Your task to perform on an android device: When is my next meeting? Image 0: 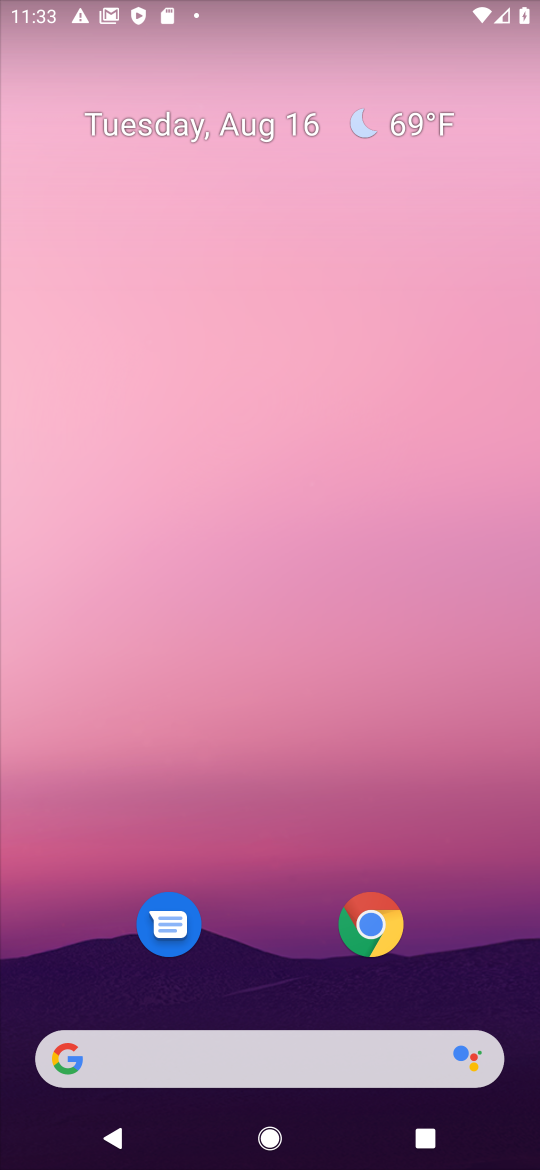
Step 0: click (222, 116)
Your task to perform on an android device: When is my next meeting? Image 1: 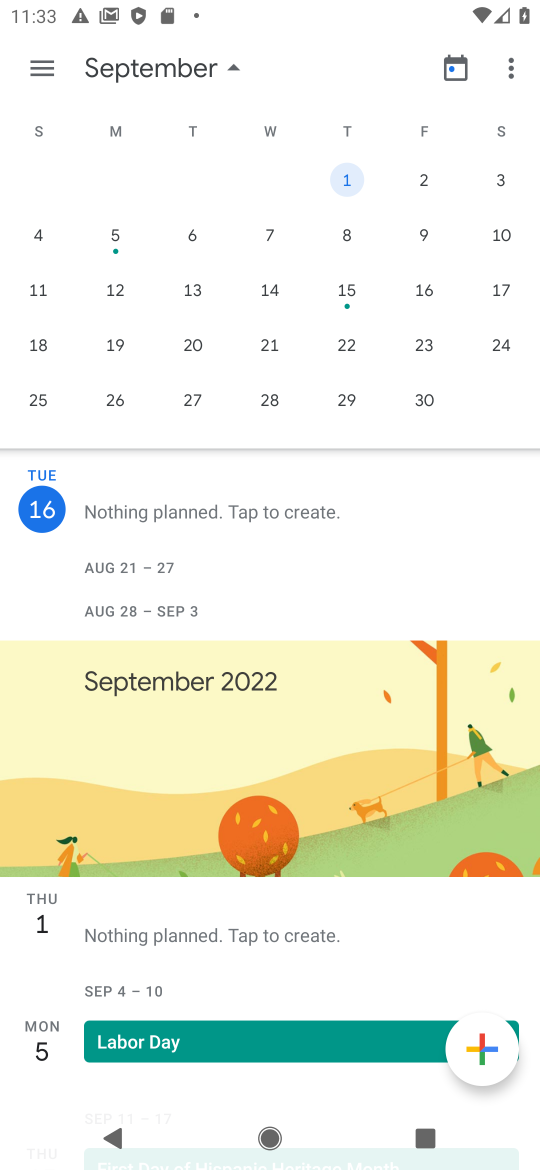
Step 1: task complete